Your task to perform on an android device: toggle data saver in the chrome app Image 0: 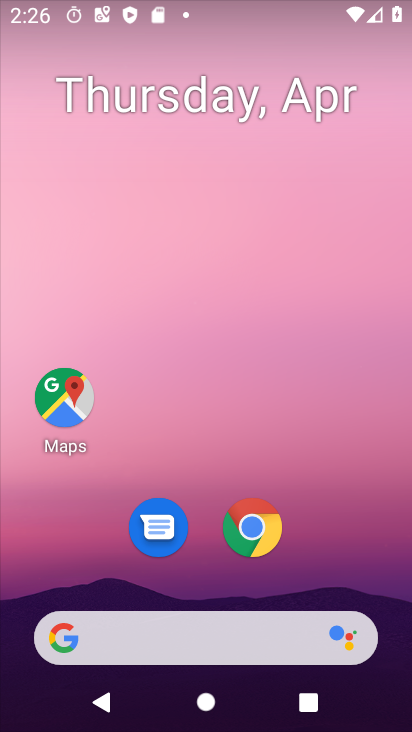
Step 0: click (345, 558)
Your task to perform on an android device: toggle data saver in the chrome app Image 1: 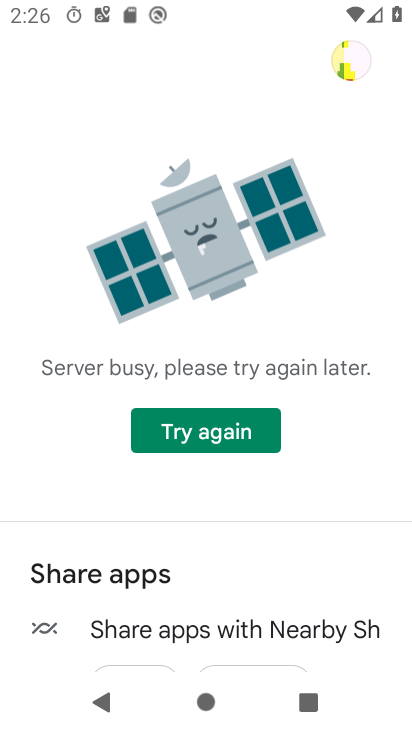
Step 1: press home button
Your task to perform on an android device: toggle data saver in the chrome app Image 2: 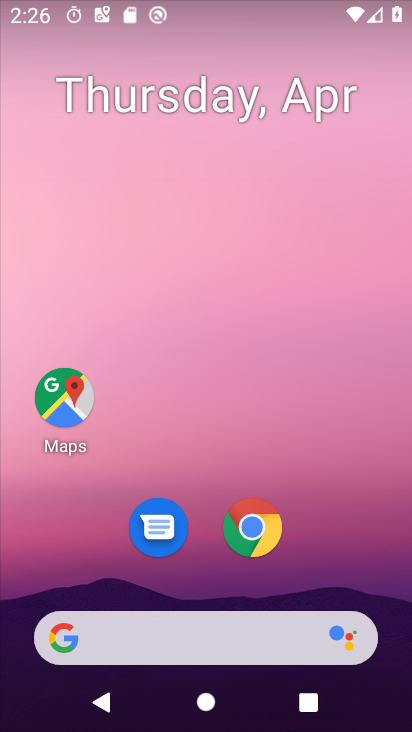
Step 2: drag from (356, 354) to (322, 226)
Your task to perform on an android device: toggle data saver in the chrome app Image 3: 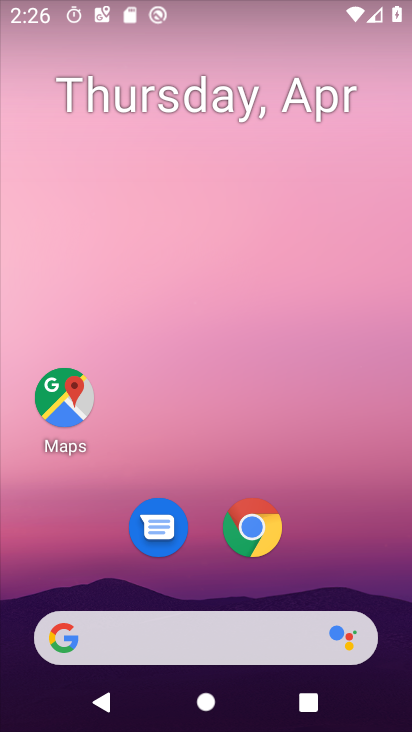
Step 3: drag from (371, 519) to (288, 94)
Your task to perform on an android device: toggle data saver in the chrome app Image 4: 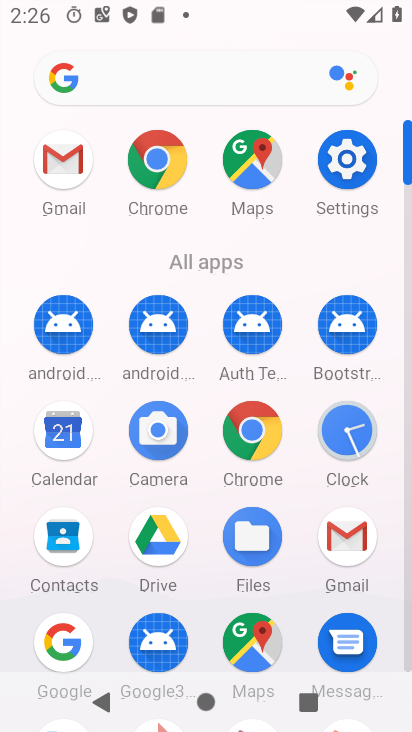
Step 4: click (251, 436)
Your task to perform on an android device: toggle data saver in the chrome app Image 5: 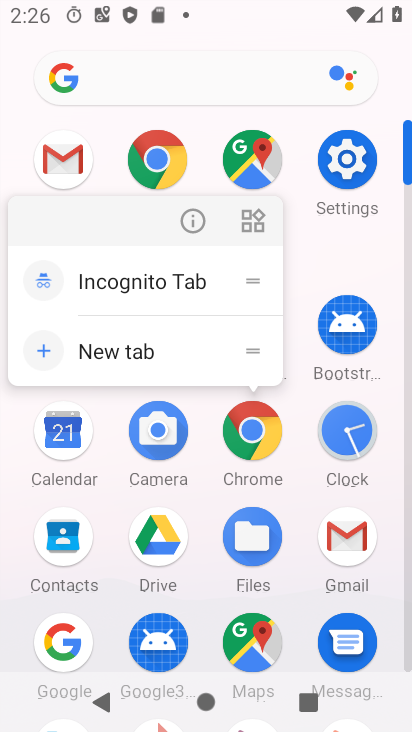
Step 5: click (257, 437)
Your task to perform on an android device: toggle data saver in the chrome app Image 6: 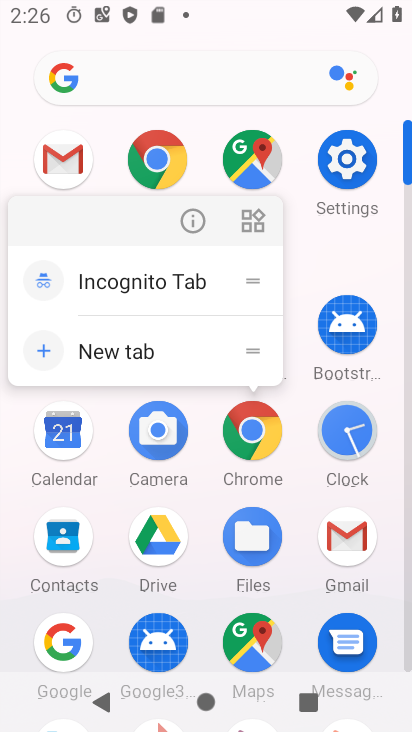
Step 6: click (271, 437)
Your task to perform on an android device: toggle data saver in the chrome app Image 7: 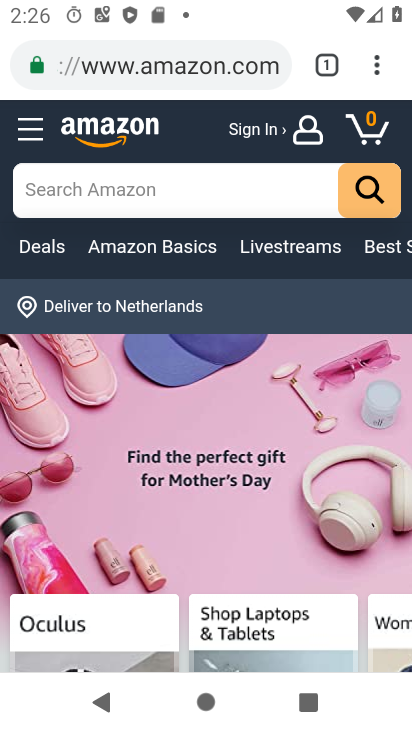
Step 7: drag from (379, 61) to (213, 586)
Your task to perform on an android device: toggle data saver in the chrome app Image 8: 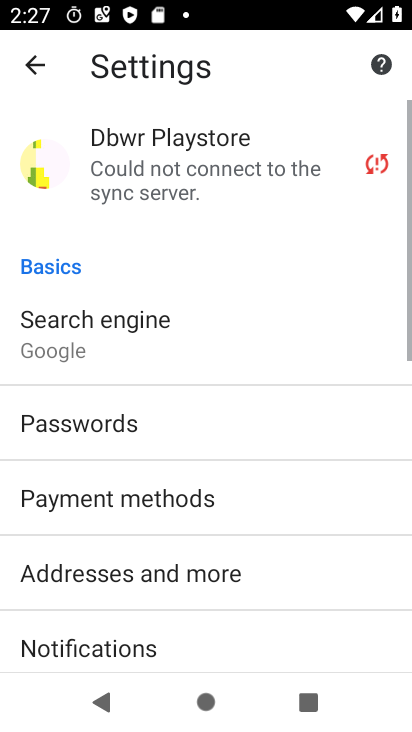
Step 8: drag from (211, 587) to (308, 42)
Your task to perform on an android device: toggle data saver in the chrome app Image 9: 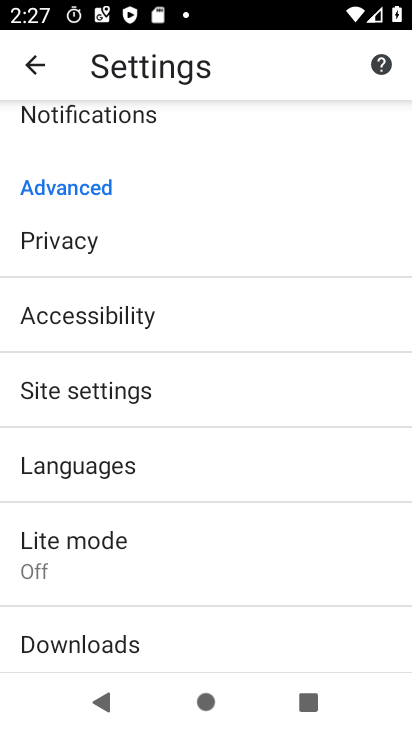
Step 9: click (150, 572)
Your task to perform on an android device: toggle data saver in the chrome app Image 10: 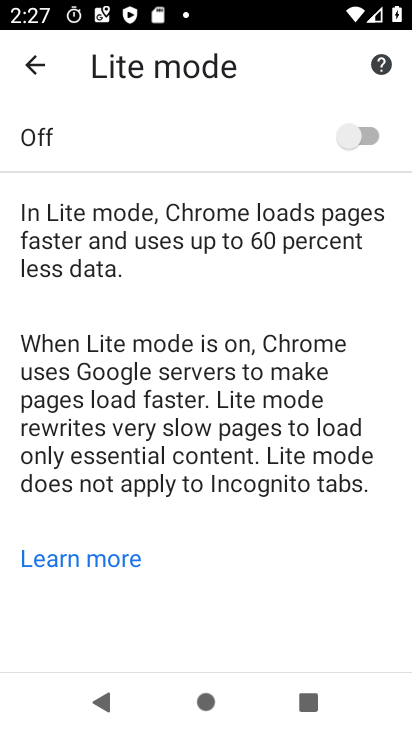
Step 10: click (330, 141)
Your task to perform on an android device: toggle data saver in the chrome app Image 11: 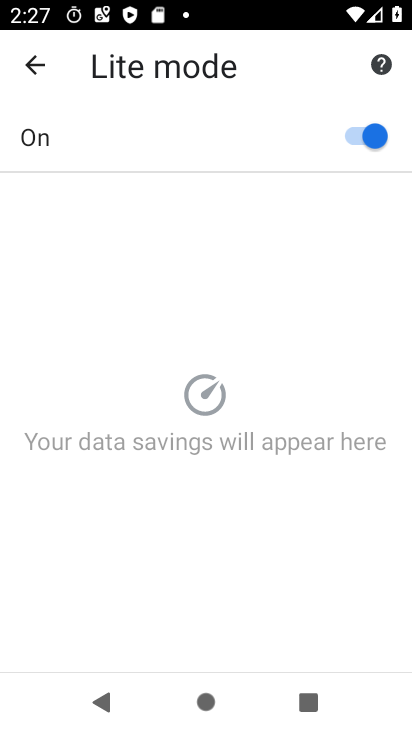
Step 11: task complete